Your task to perform on an android device: Open Android settings Image 0: 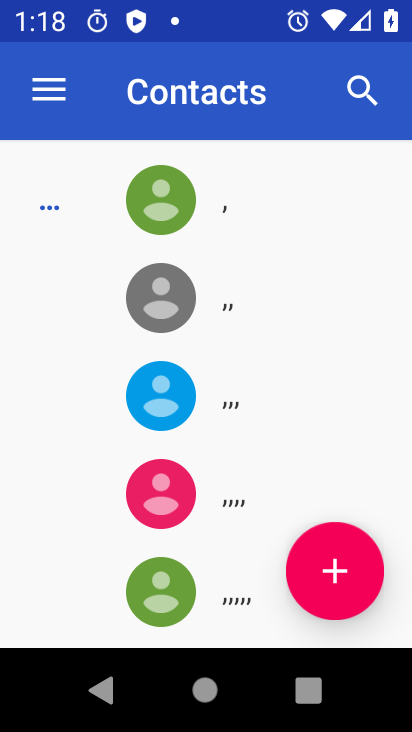
Step 0: press home button
Your task to perform on an android device: Open Android settings Image 1: 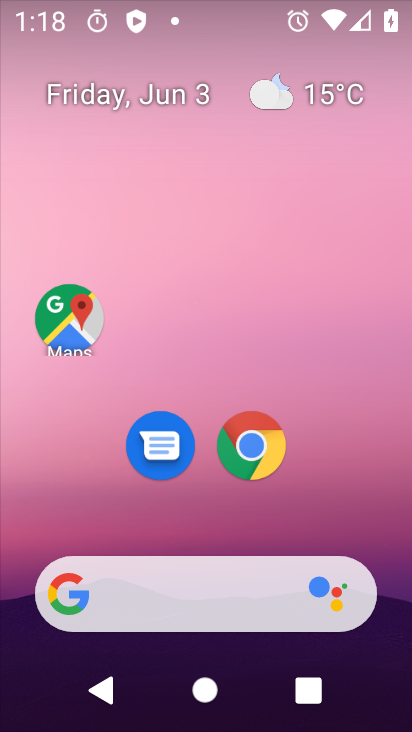
Step 1: drag from (198, 540) to (373, 5)
Your task to perform on an android device: Open Android settings Image 2: 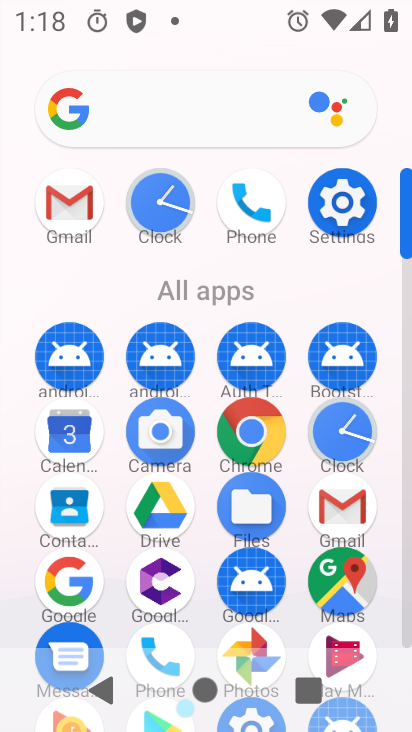
Step 2: click (353, 215)
Your task to perform on an android device: Open Android settings Image 3: 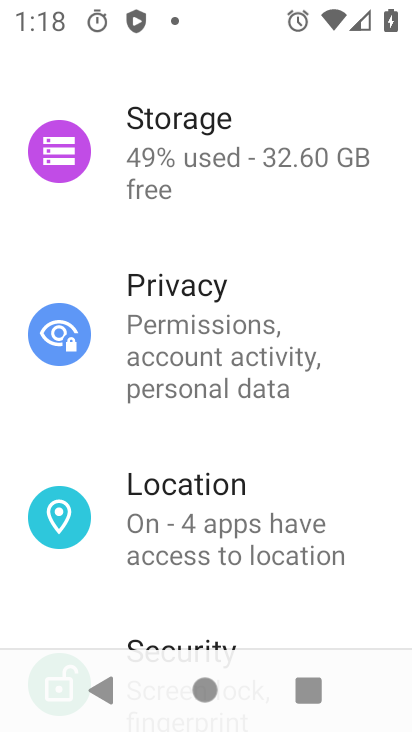
Step 3: task complete